Your task to perform on an android device: stop showing notifications on the lock screen Image 0: 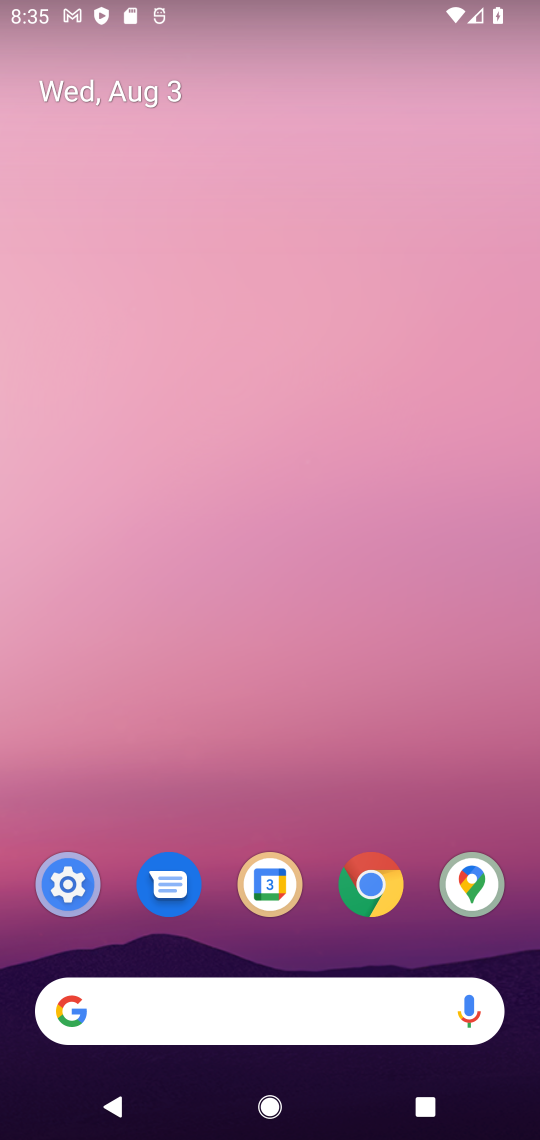
Step 0: click (78, 885)
Your task to perform on an android device: stop showing notifications on the lock screen Image 1: 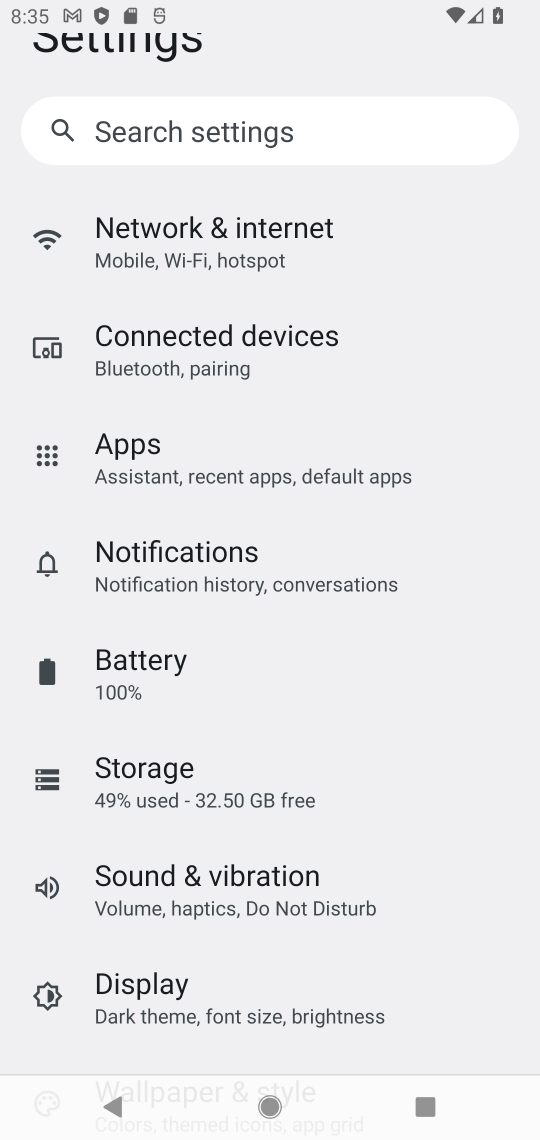
Step 1: click (232, 587)
Your task to perform on an android device: stop showing notifications on the lock screen Image 2: 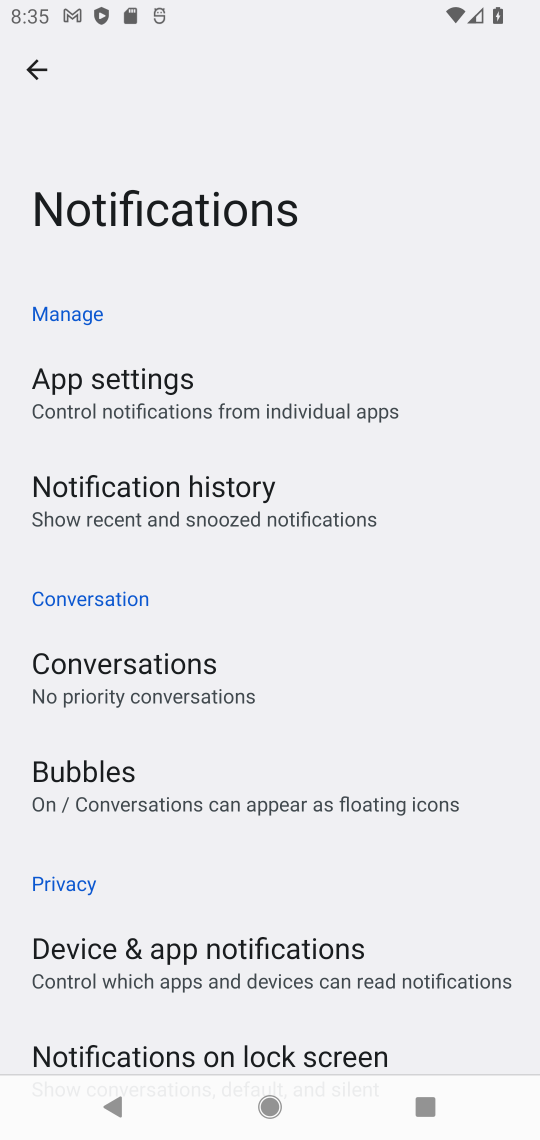
Step 2: drag from (243, 752) to (341, 440)
Your task to perform on an android device: stop showing notifications on the lock screen Image 3: 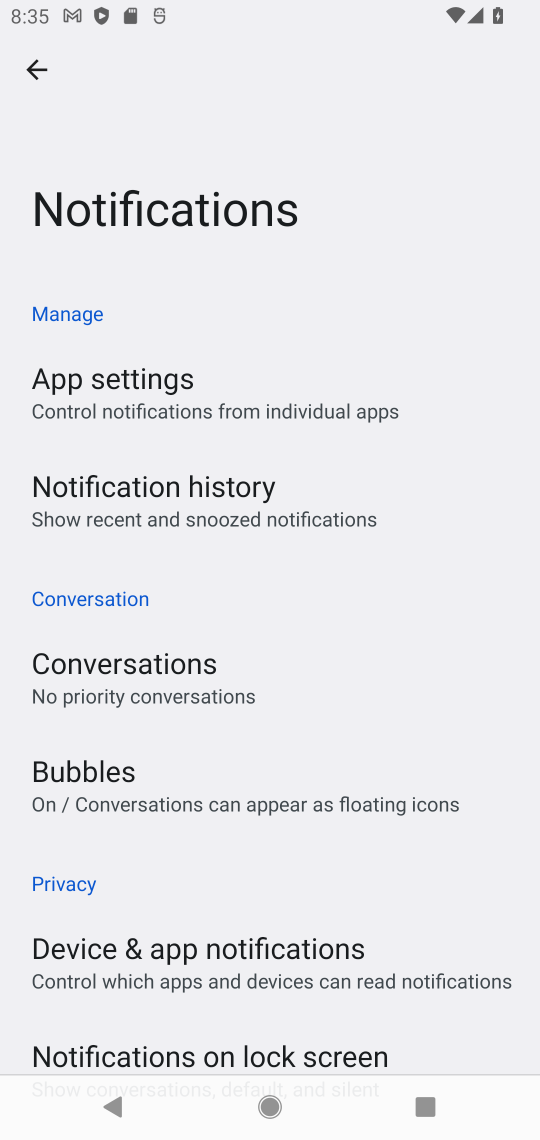
Step 3: drag from (281, 996) to (536, 29)
Your task to perform on an android device: stop showing notifications on the lock screen Image 4: 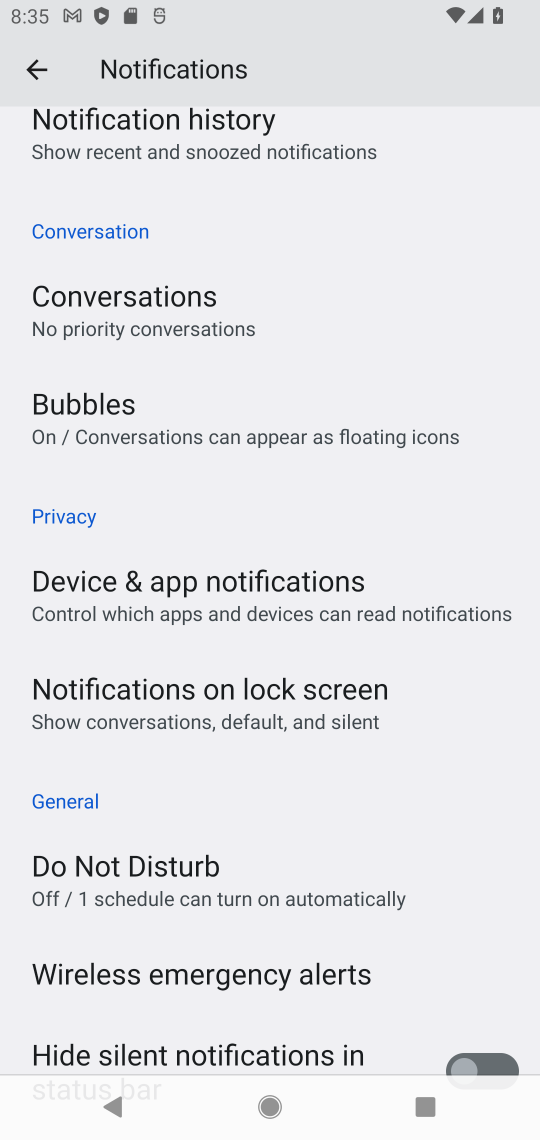
Step 4: drag from (330, 484) to (359, 326)
Your task to perform on an android device: stop showing notifications on the lock screen Image 5: 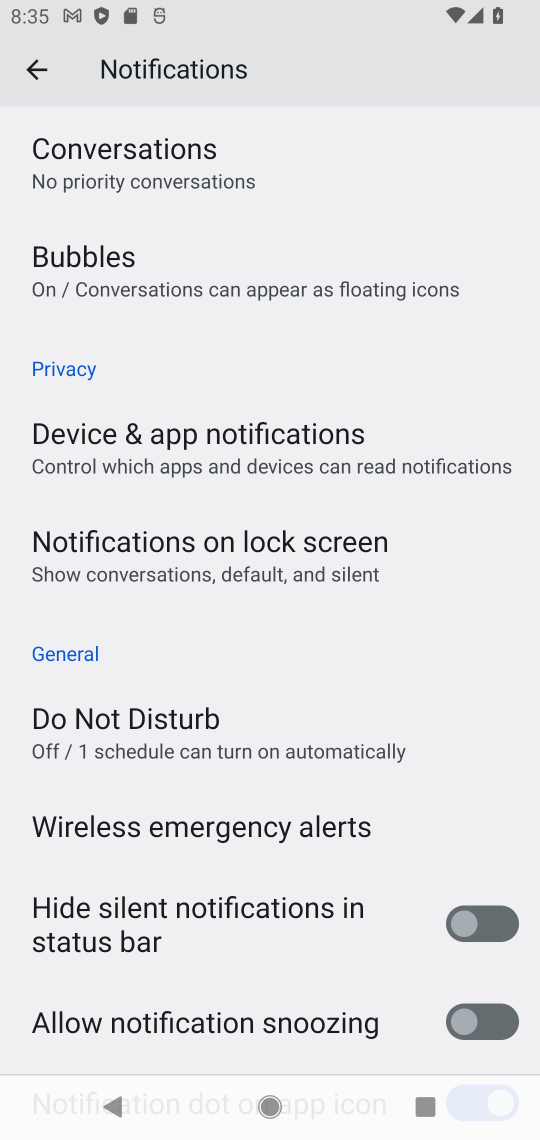
Step 5: click (174, 562)
Your task to perform on an android device: stop showing notifications on the lock screen Image 6: 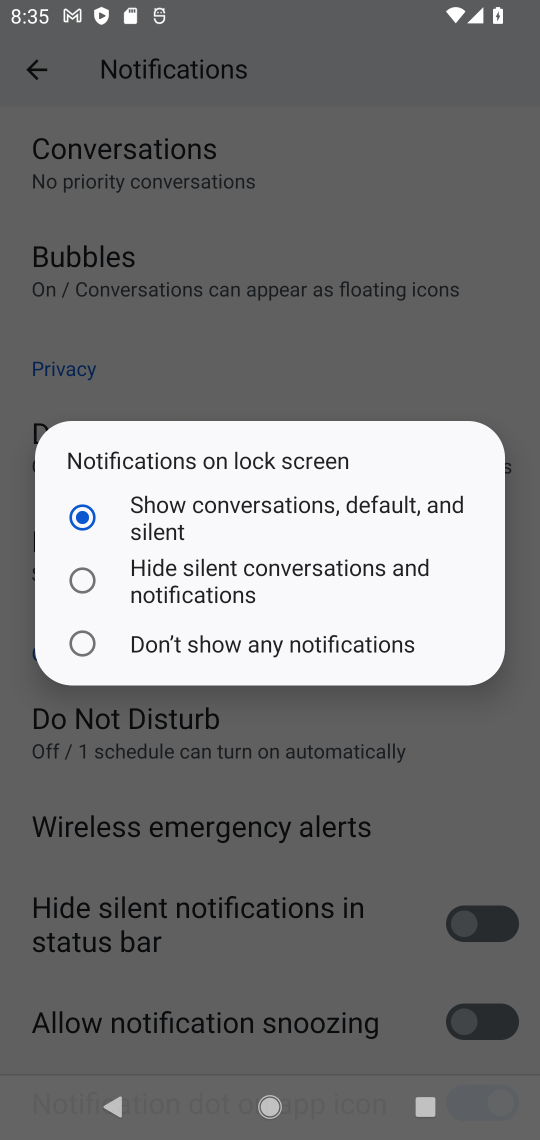
Step 6: click (82, 641)
Your task to perform on an android device: stop showing notifications on the lock screen Image 7: 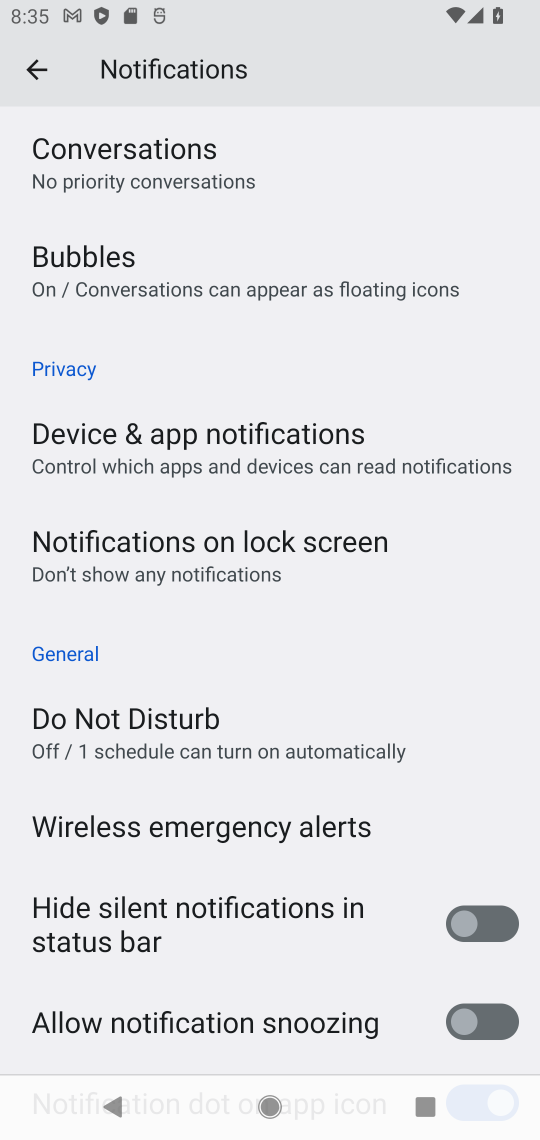
Step 7: task complete